Your task to perform on an android device: turn off location Image 0: 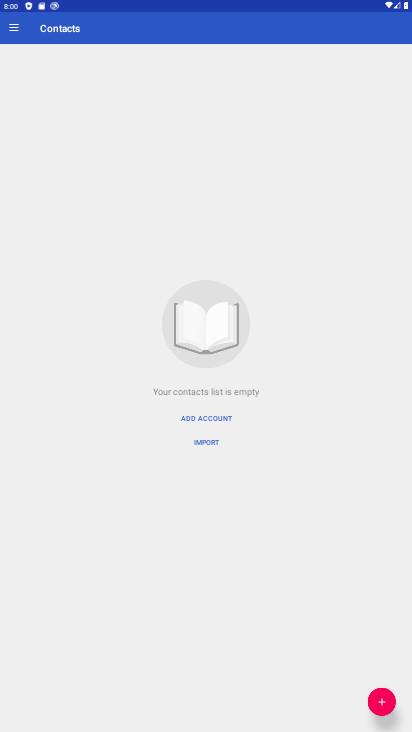
Step 0: press back button
Your task to perform on an android device: turn off location Image 1: 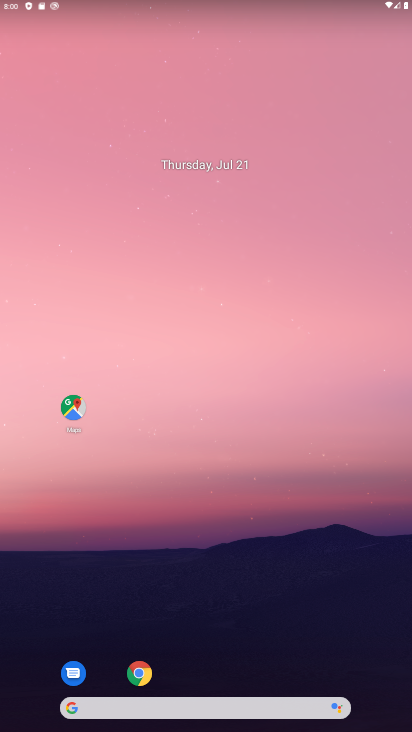
Step 1: drag from (204, 610) to (232, 3)
Your task to perform on an android device: turn off location Image 2: 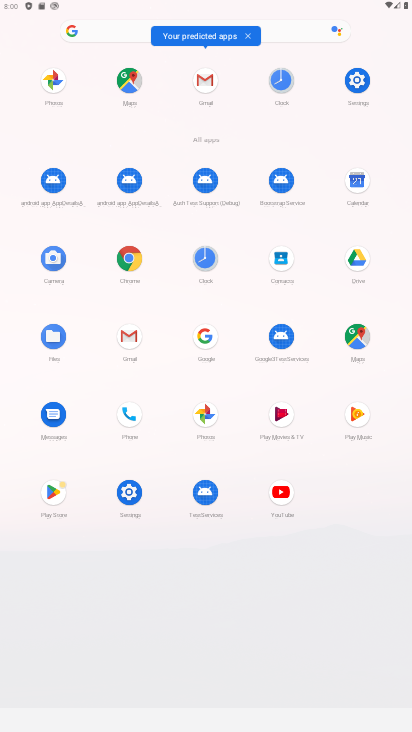
Step 2: click (129, 503)
Your task to perform on an android device: turn off location Image 3: 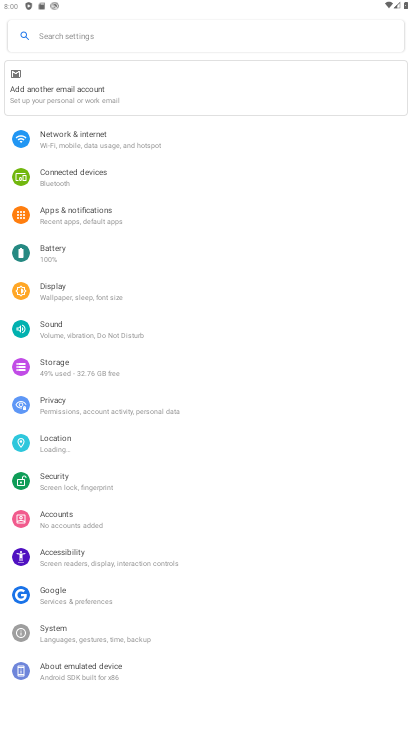
Step 3: click (76, 441)
Your task to perform on an android device: turn off location Image 4: 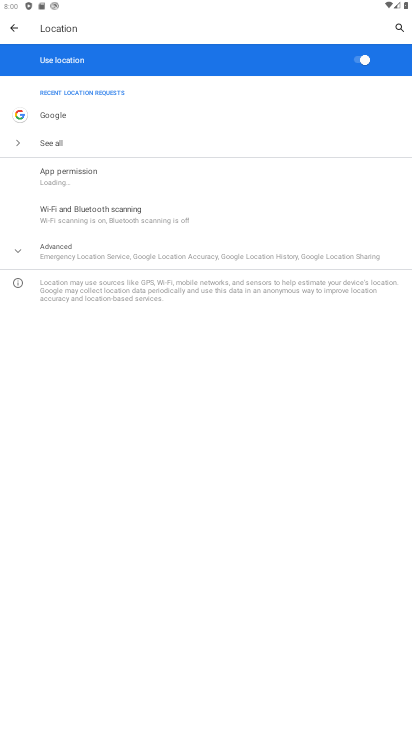
Step 4: click (371, 55)
Your task to perform on an android device: turn off location Image 5: 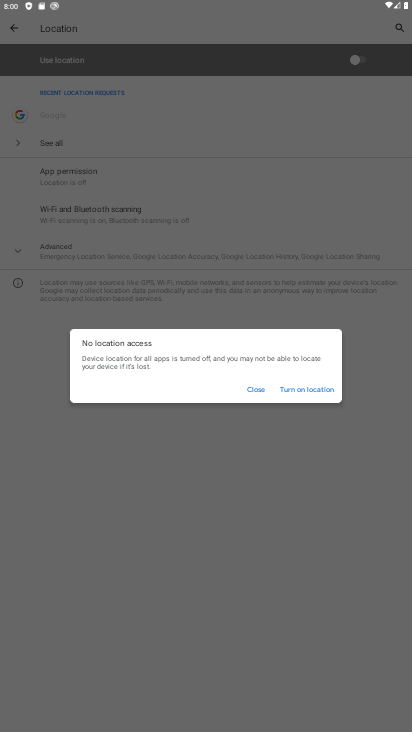
Step 5: task complete